Your task to perform on an android device: check storage Image 0: 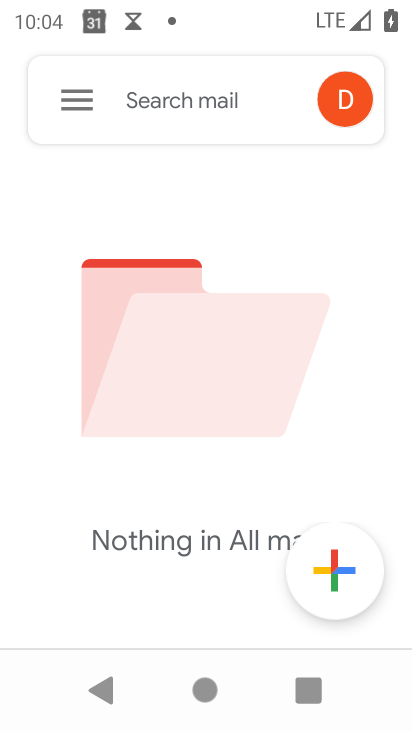
Step 0: press home button
Your task to perform on an android device: check storage Image 1: 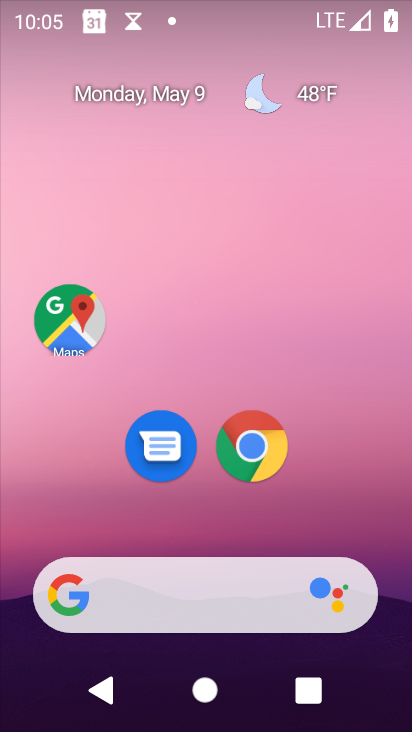
Step 1: drag from (311, 532) to (313, 37)
Your task to perform on an android device: check storage Image 2: 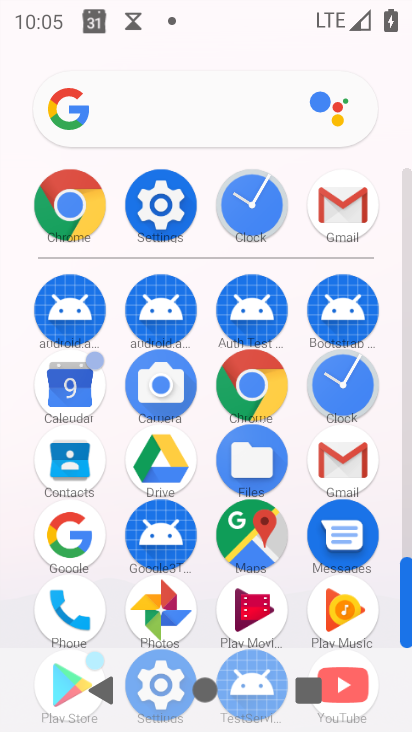
Step 2: click (164, 205)
Your task to perform on an android device: check storage Image 3: 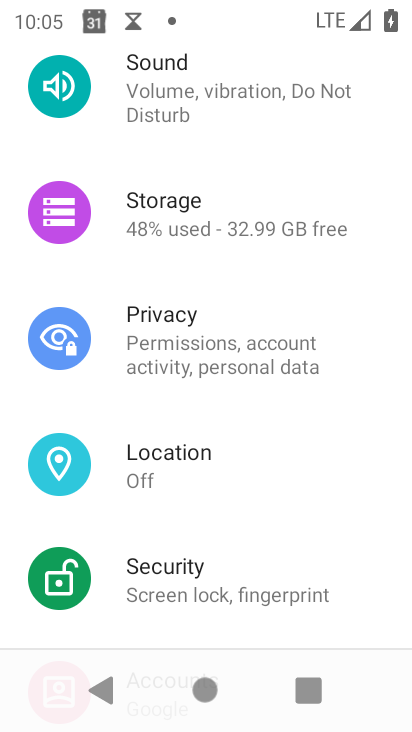
Step 3: click (234, 220)
Your task to perform on an android device: check storage Image 4: 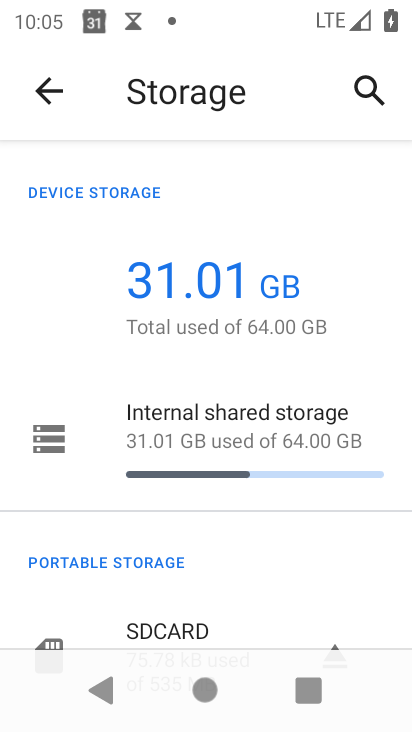
Step 4: task complete